Your task to perform on an android device: add a contact in the contacts app Image 0: 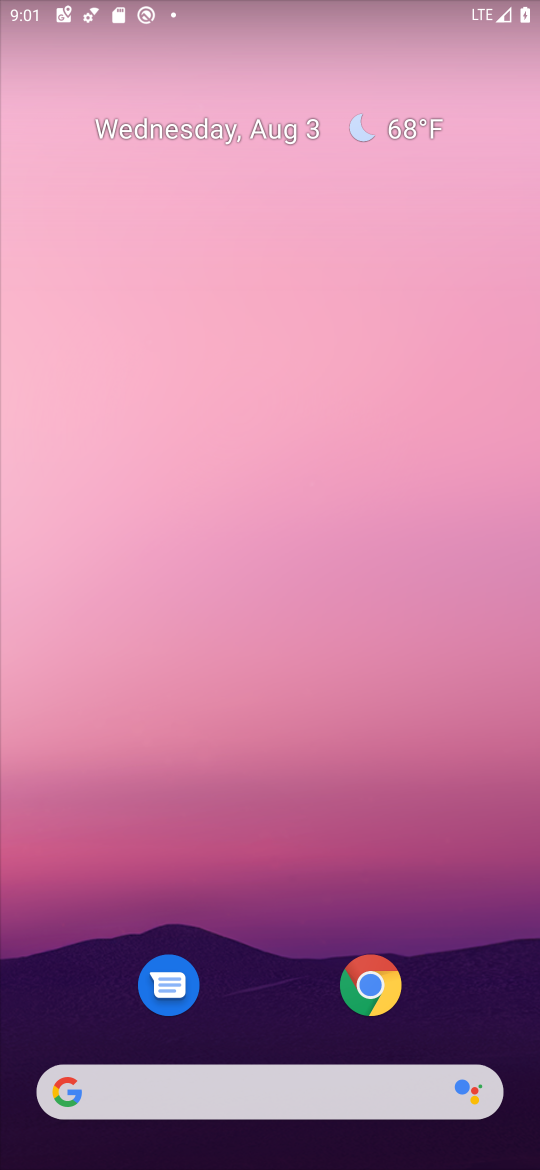
Step 0: drag from (300, 853) to (374, 245)
Your task to perform on an android device: add a contact in the contacts app Image 1: 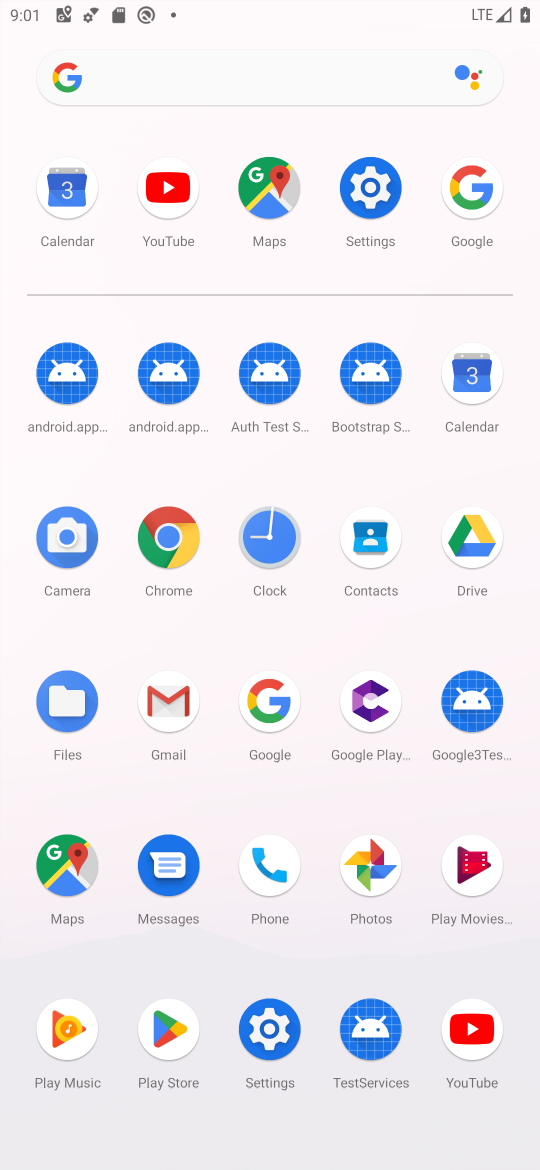
Step 1: click (362, 538)
Your task to perform on an android device: add a contact in the contacts app Image 2: 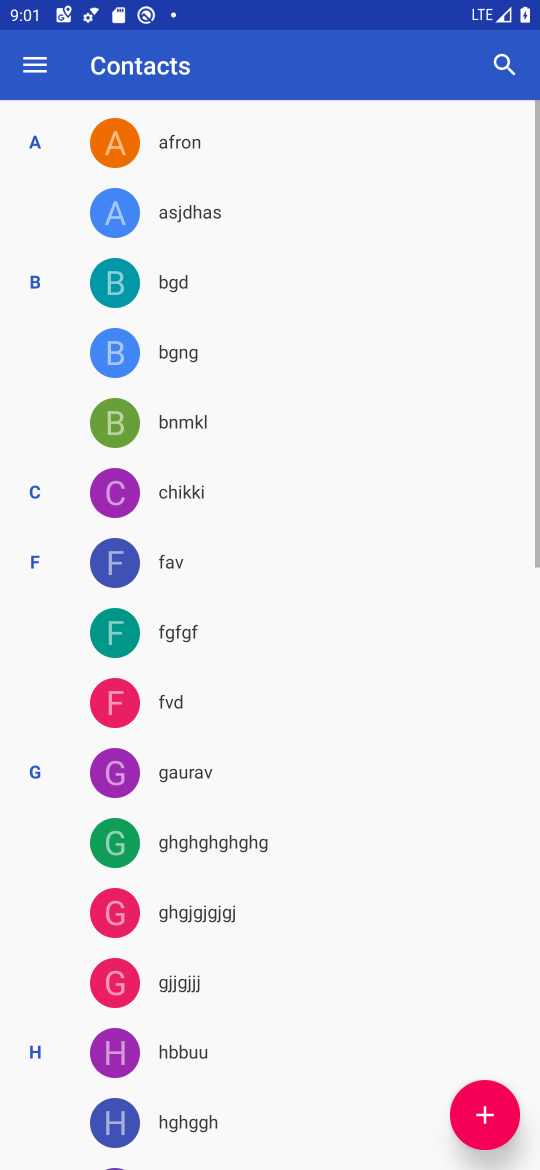
Step 2: click (468, 1091)
Your task to perform on an android device: add a contact in the contacts app Image 3: 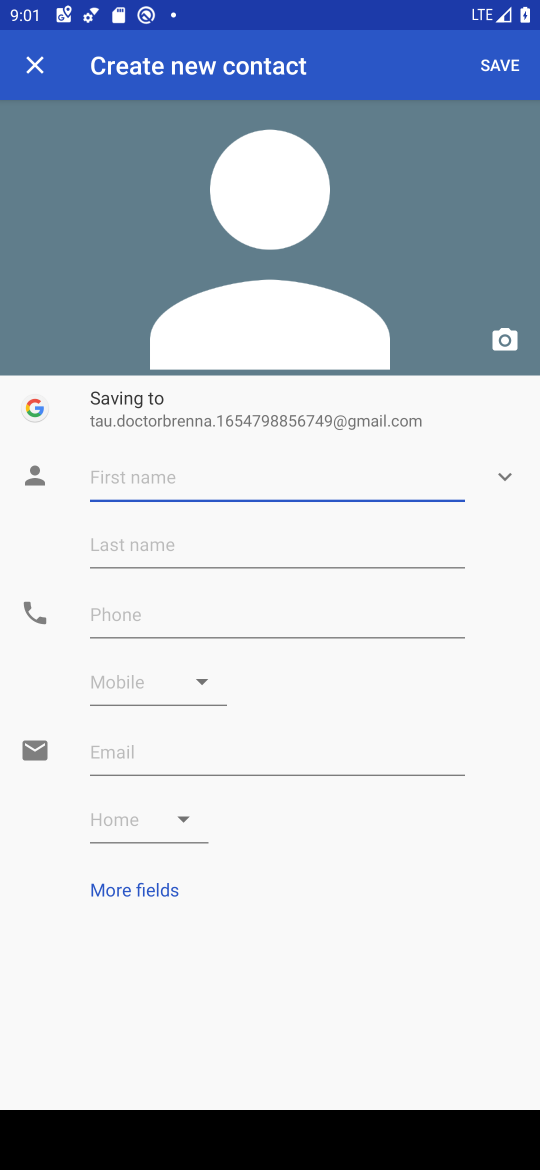
Step 3: type "cfgjfgj"
Your task to perform on an android device: add a contact in the contacts app Image 4: 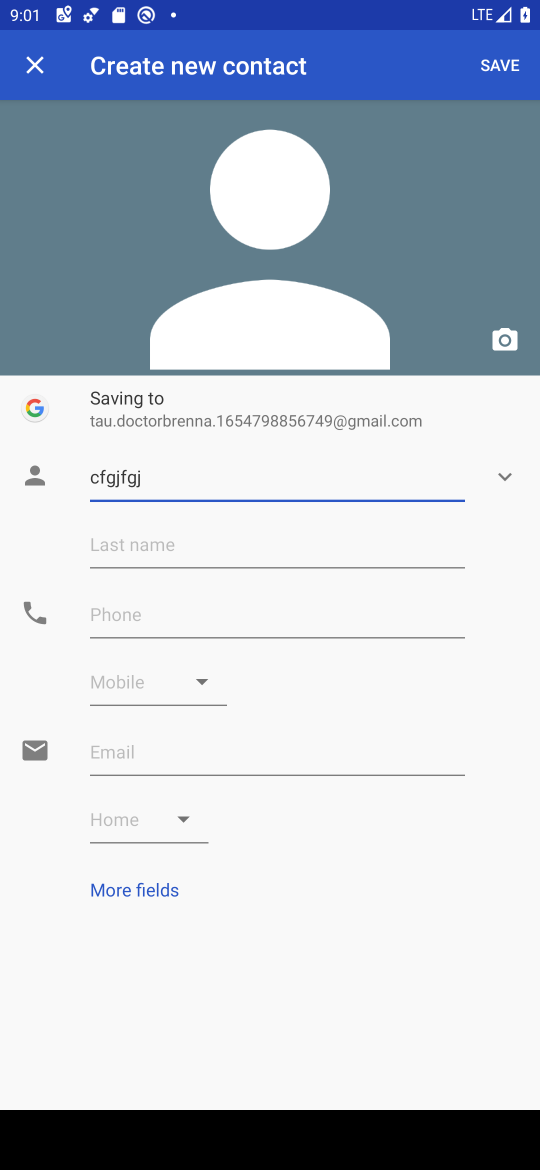
Step 4: click (190, 610)
Your task to perform on an android device: add a contact in the contacts app Image 5: 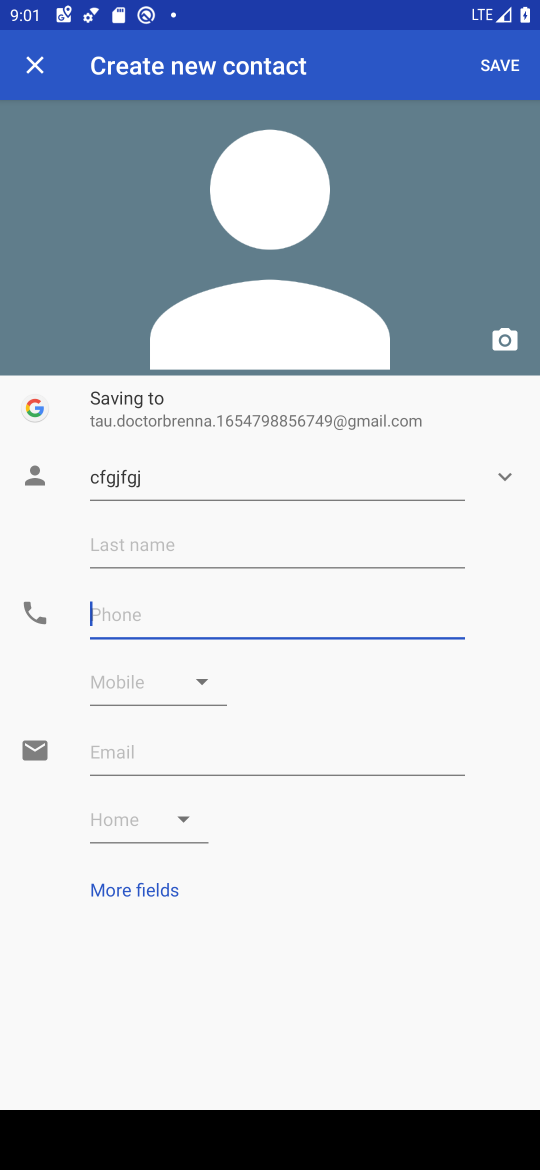
Step 5: type "68567575"
Your task to perform on an android device: add a contact in the contacts app Image 6: 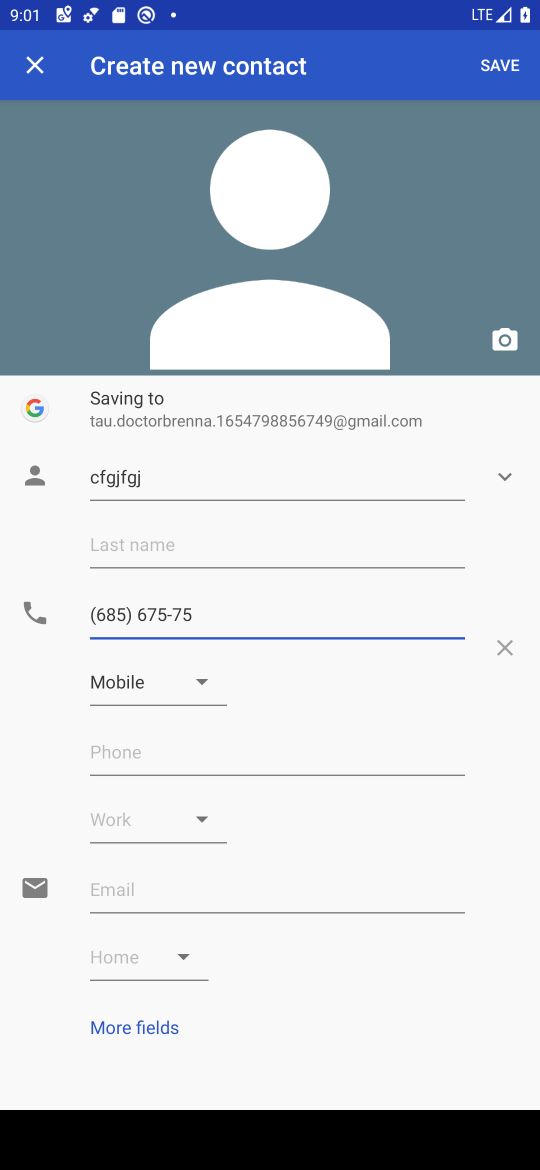
Step 6: click (493, 60)
Your task to perform on an android device: add a contact in the contacts app Image 7: 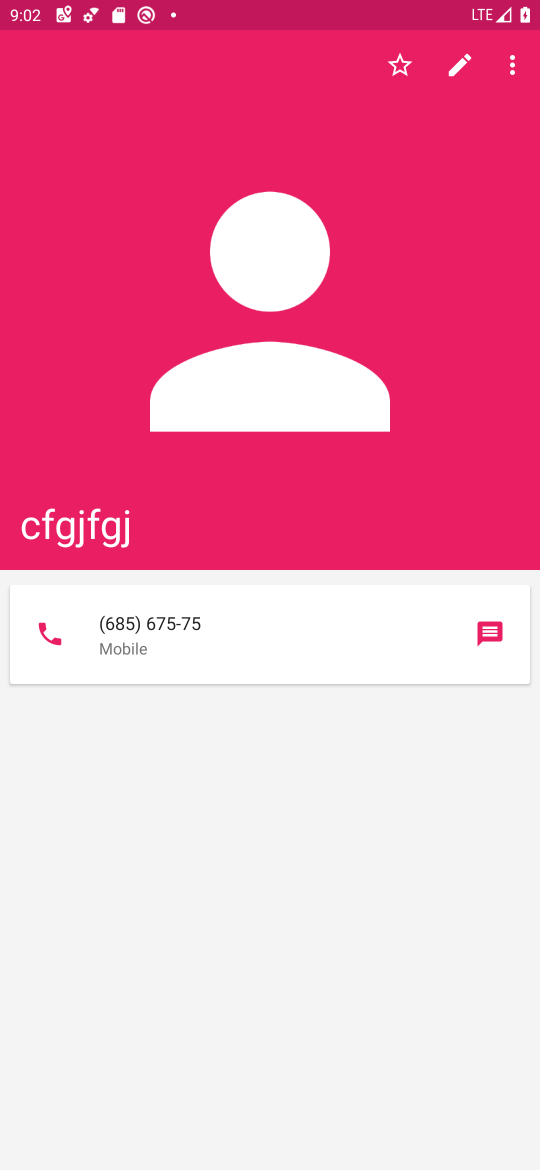
Step 7: task complete